Your task to perform on an android device: change your default location settings in chrome Image 0: 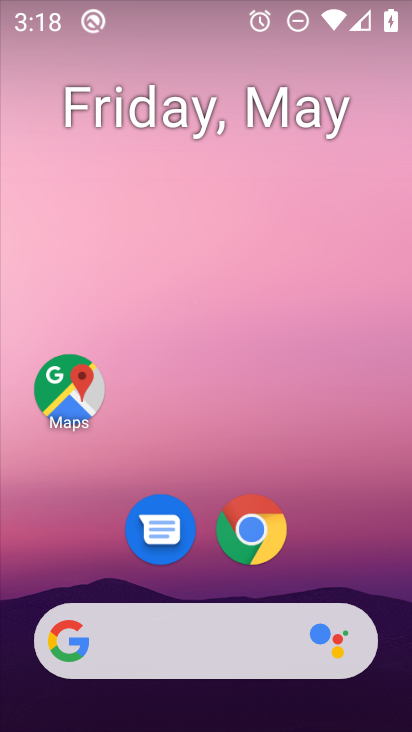
Step 0: click (270, 522)
Your task to perform on an android device: change your default location settings in chrome Image 1: 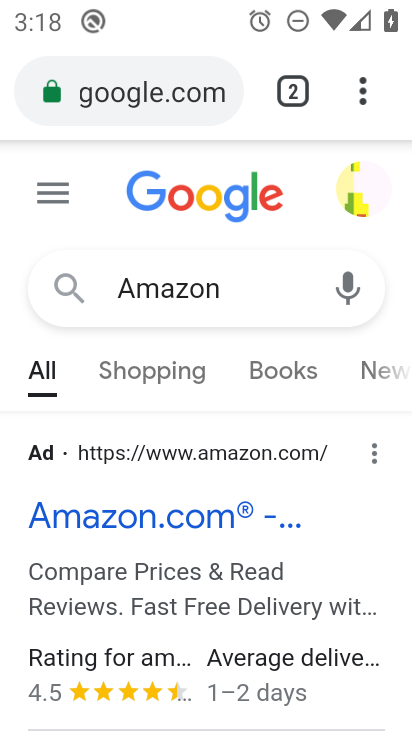
Step 1: click (361, 100)
Your task to perform on an android device: change your default location settings in chrome Image 2: 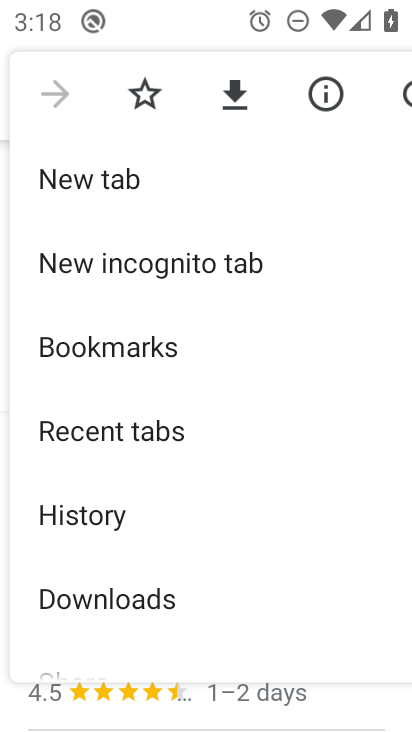
Step 2: drag from (257, 618) to (299, 309)
Your task to perform on an android device: change your default location settings in chrome Image 3: 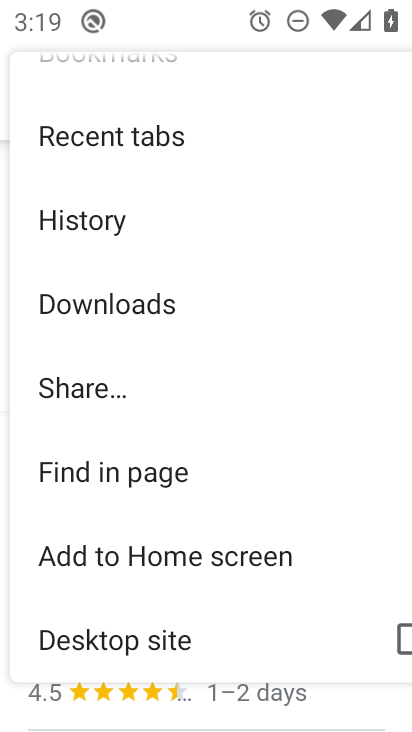
Step 3: drag from (312, 630) to (296, 287)
Your task to perform on an android device: change your default location settings in chrome Image 4: 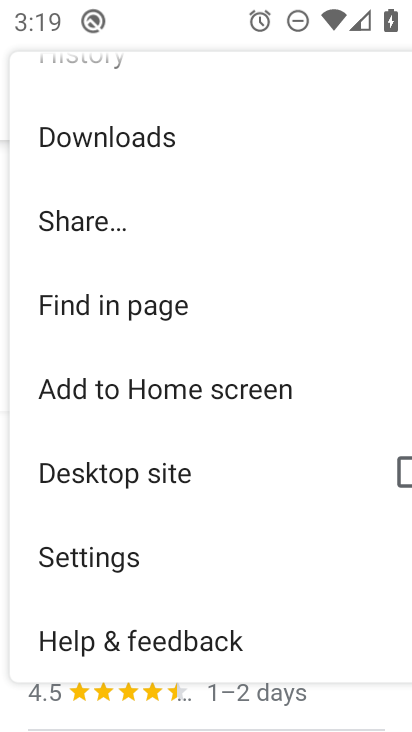
Step 4: drag from (289, 504) to (288, 314)
Your task to perform on an android device: change your default location settings in chrome Image 5: 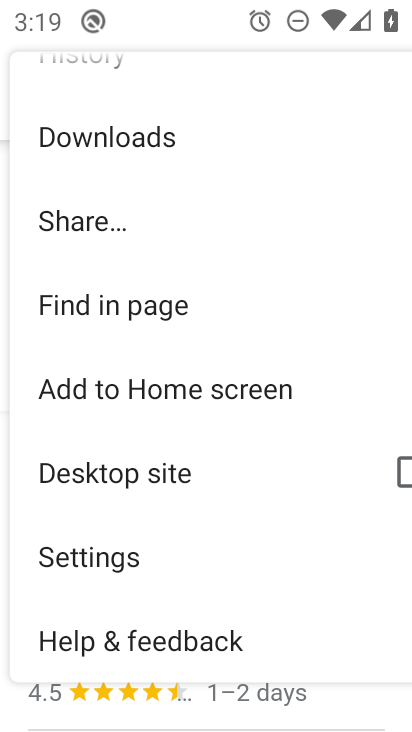
Step 5: click (51, 542)
Your task to perform on an android device: change your default location settings in chrome Image 6: 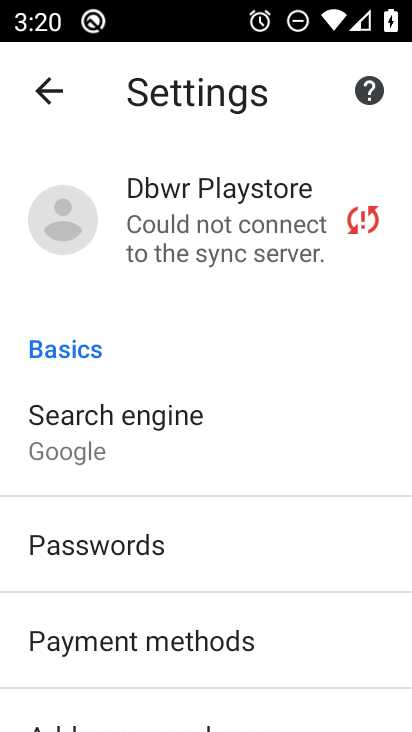
Step 6: drag from (292, 517) to (287, 374)
Your task to perform on an android device: change your default location settings in chrome Image 7: 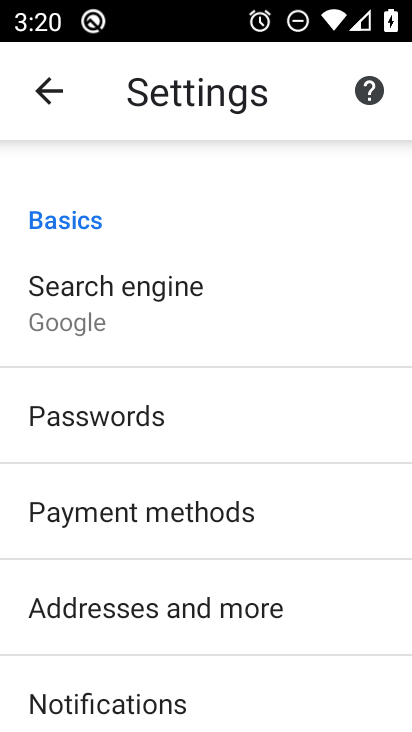
Step 7: drag from (312, 662) to (329, 427)
Your task to perform on an android device: change your default location settings in chrome Image 8: 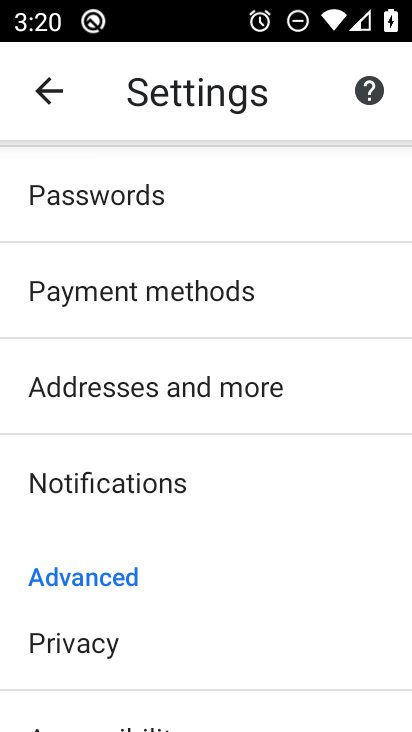
Step 8: drag from (266, 665) to (272, 433)
Your task to perform on an android device: change your default location settings in chrome Image 9: 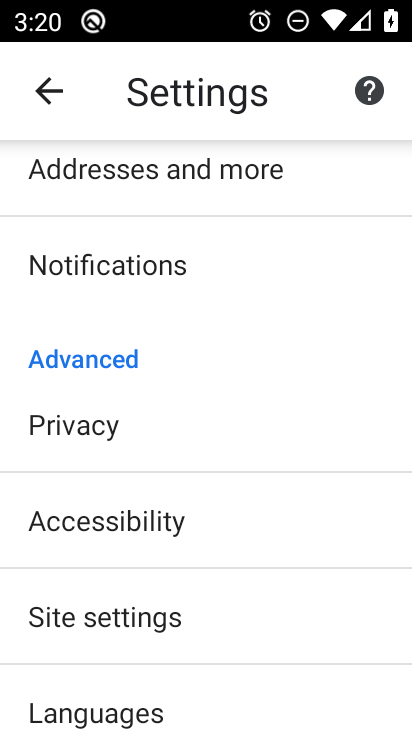
Step 9: click (101, 633)
Your task to perform on an android device: change your default location settings in chrome Image 10: 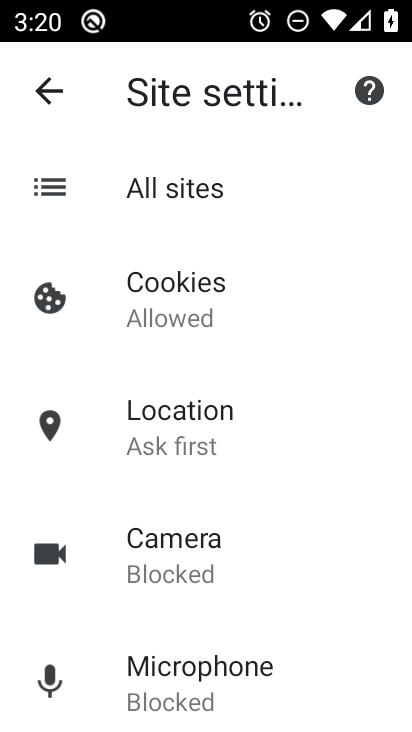
Step 10: click (190, 433)
Your task to perform on an android device: change your default location settings in chrome Image 11: 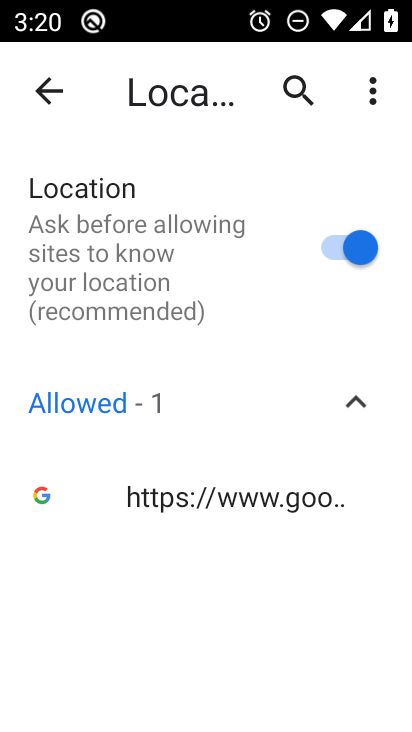
Step 11: click (321, 256)
Your task to perform on an android device: change your default location settings in chrome Image 12: 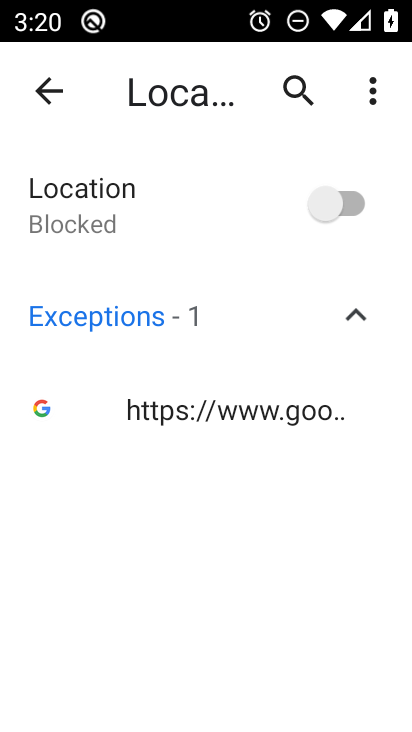
Step 12: click (329, 251)
Your task to perform on an android device: change your default location settings in chrome Image 13: 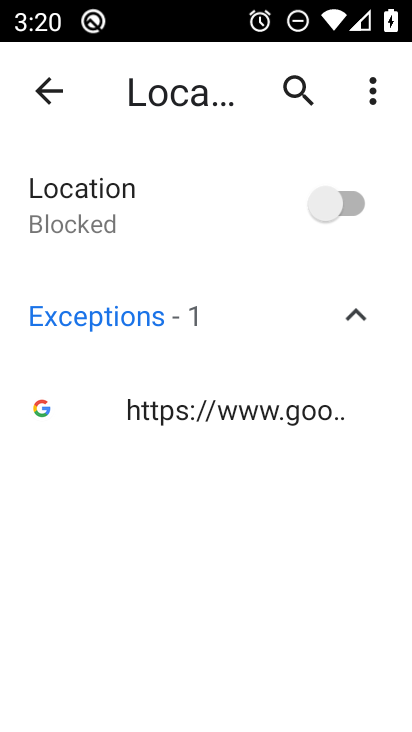
Step 13: task complete